Your task to perform on an android device: Go to Google Image 0: 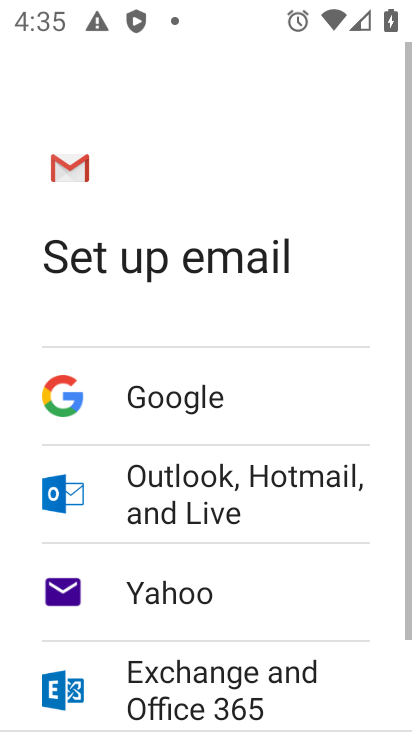
Step 0: press home button
Your task to perform on an android device: Go to Google Image 1: 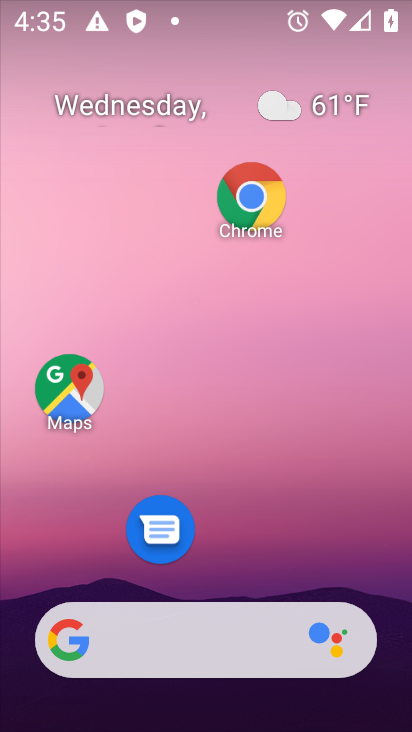
Step 1: click (71, 626)
Your task to perform on an android device: Go to Google Image 2: 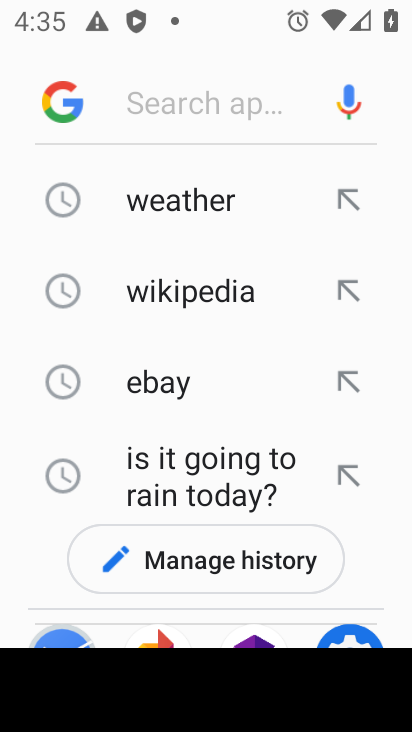
Step 2: click (53, 105)
Your task to perform on an android device: Go to Google Image 3: 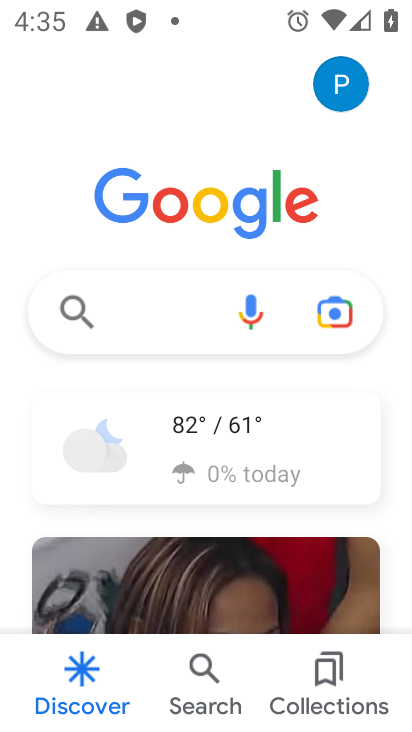
Step 3: task complete